Your task to perform on an android device: Open Google Chrome and click the shortcut for Amazon.com Image 0: 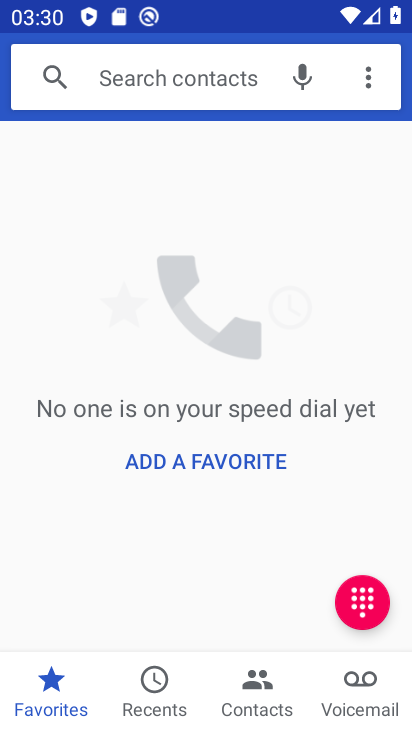
Step 0: press home button
Your task to perform on an android device: Open Google Chrome and click the shortcut for Amazon.com Image 1: 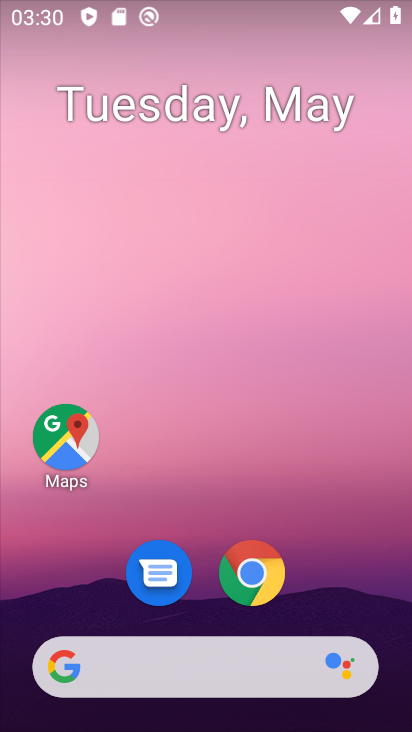
Step 1: click (255, 575)
Your task to perform on an android device: Open Google Chrome and click the shortcut for Amazon.com Image 2: 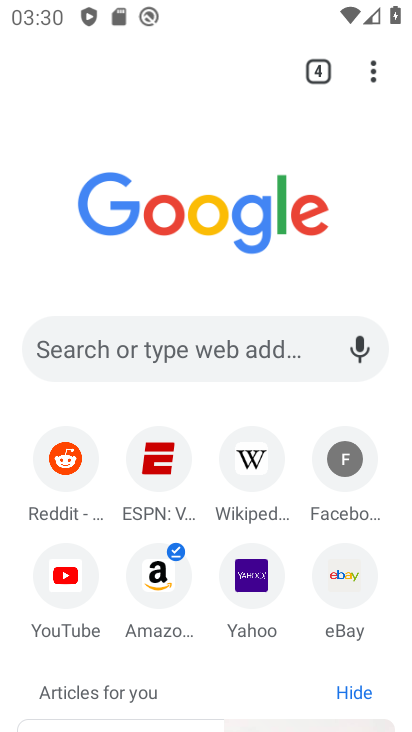
Step 2: click (159, 568)
Your task to perform on an android device: Open Google Chrome and click the shortcut for Amazon.com Image 3: 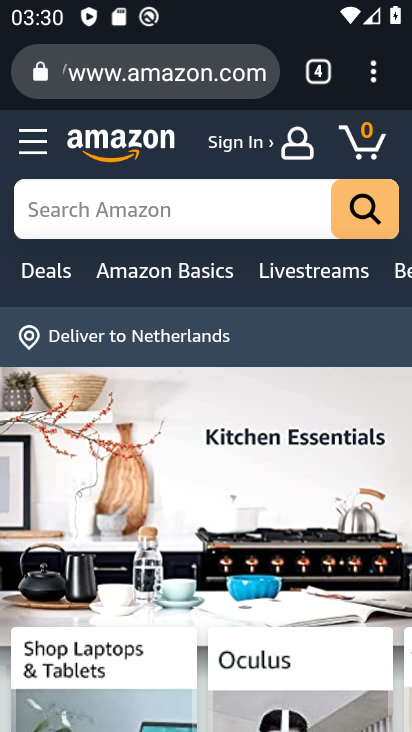
Step 3: task complete